Your task to perform on an android device: toggle translation in the chrome app Image 0: 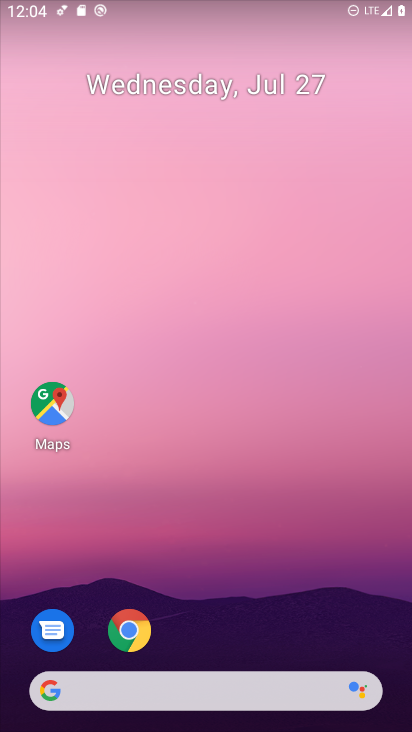
Step 0: click (128, 632)
Your task to perform on an android device: toggle translation in the chrome app Image 1: 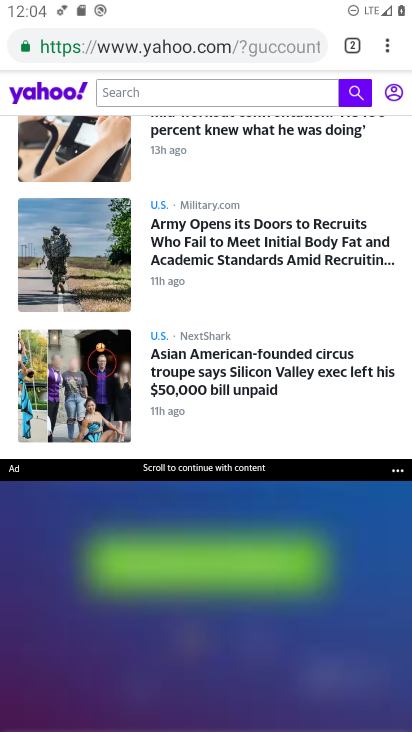
Step 1: click (386, 52)
Your task to perform on an android device: toggle translation in the chrome app Image 2: 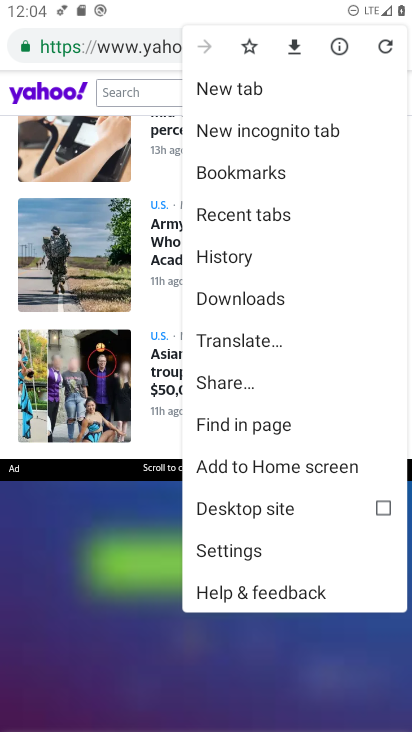
Step 2: click (240, 551)
Your task to perform on an android device: toggle translation in the chrome app Image 3: 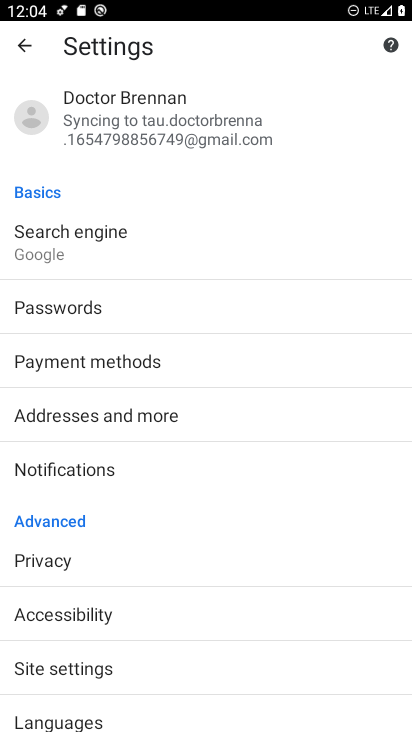
Step 3: drag from (176, 665) to (187, 369)
Your task to perform on an android device: toggle translation in the chrome app Image 4: 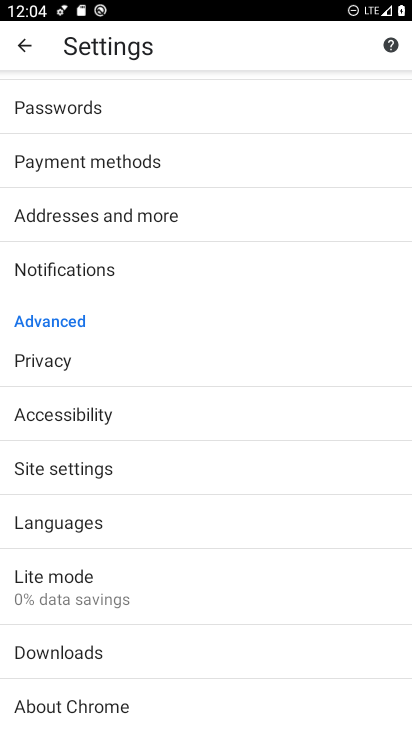
Step 4: click (52, 519)
Your task to perform on an android device: toggle translation in the chrome app Image 5: 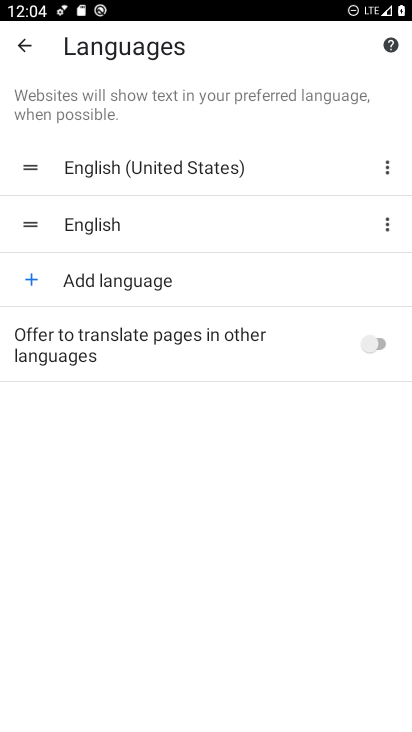
Step 5: click (381, 341)
Your task to perform on an android device: toggle translation in the chrome app Image 6: 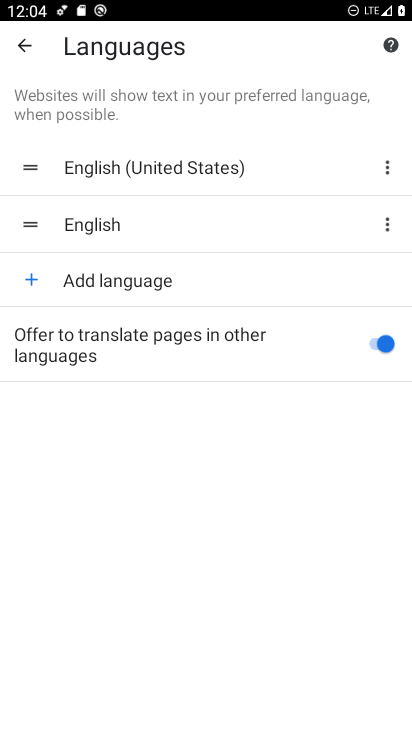
Step 6: task complete